Your task to perform on an android device: refresh tabs in the chrome app Image 0: 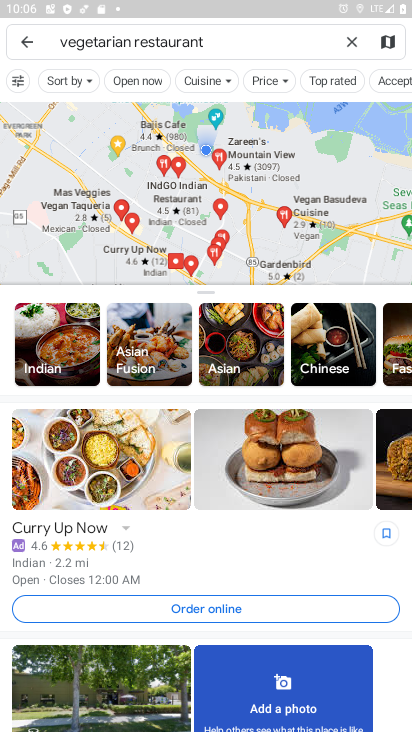
Step 0: press home button
Your task to perform on an android device: refresh tabs in the chrome app Image 1: 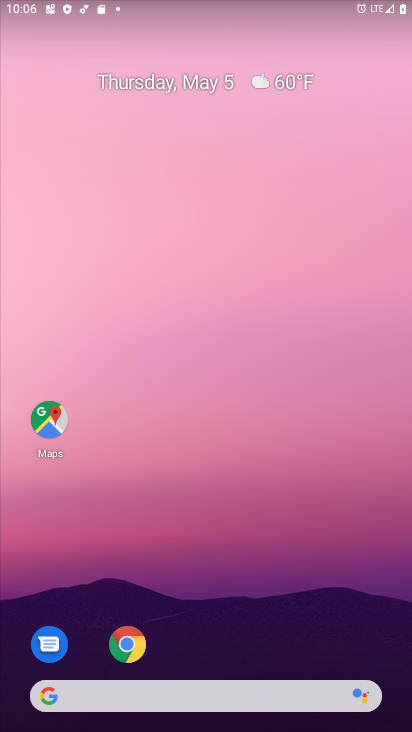
Step 1: click (139, 640)
Your task to perform on an android device: refresh tabs in the chrome app Image 2: 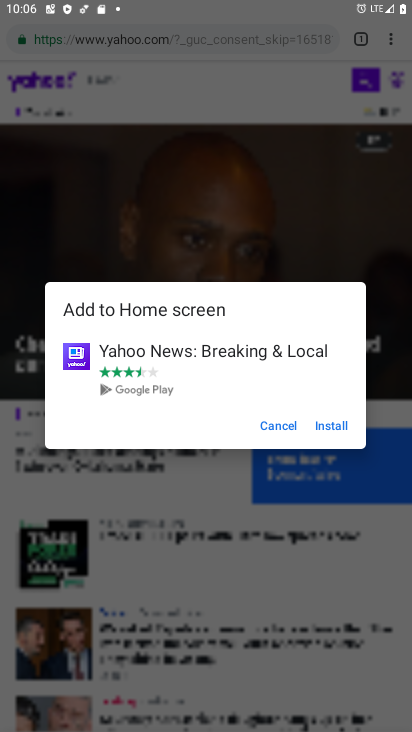
Step 2: drag from (391, 39) to (408, 255)
Your task to perform on an android device: refresh tabs in the chrome app Image 3: 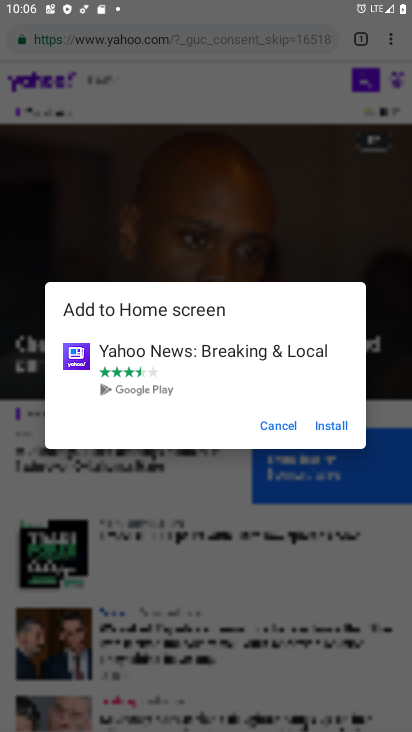
Step 3: press back button
Your task to perform on an android device: refresh tabs in the chrome app Image 4: 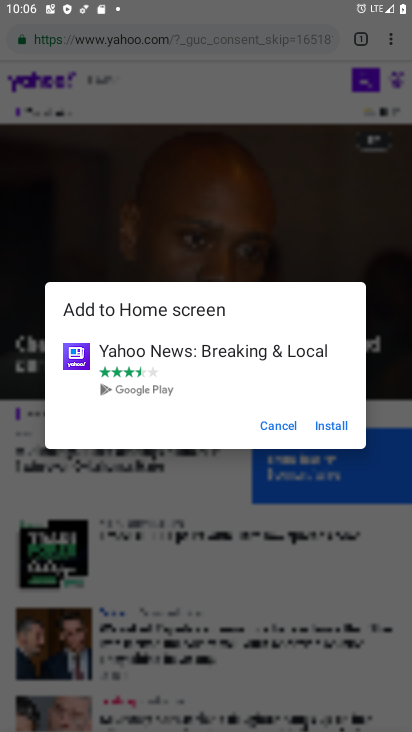
Step 4: click (411, 170)
Your task to perform on an android device: refresh tabs in the chrome app Image 5: 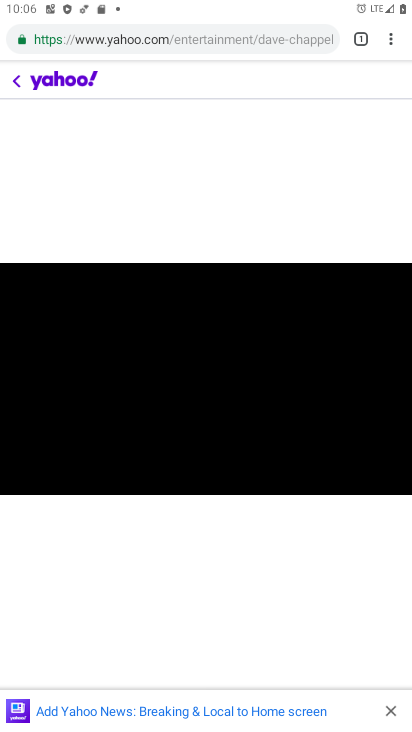
Step 5: click (394, 36)
Your task to perform on an android device: refresh tabs in the chrome app Image 6: 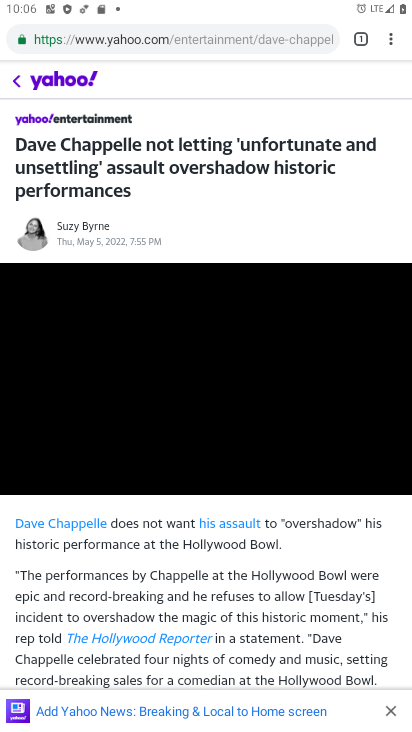
Step 6: task complete